Your task to perform on an android device: Go to Yahoo.com Image 0: 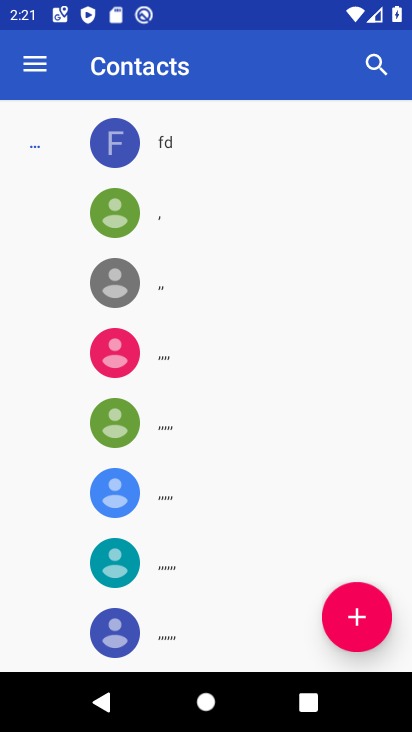
Step 0: drag from (226, 578) to (372, 148)
Your task to perform on an android device: Go to Yahoo.com Image 1: 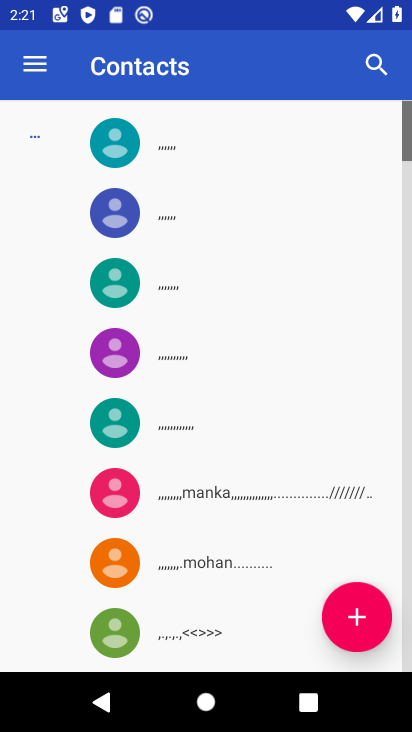
Step 1: press home button
Your task to perform on an android device: Go to Yahoo.com Image 2: 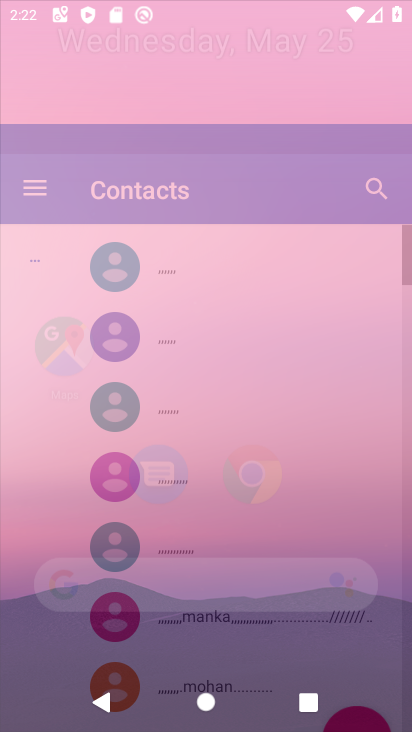
Step 2: drag from (246, 560) to (344, 120)
Your task to perform on an android device: Go to Yahoo.com Image 3: 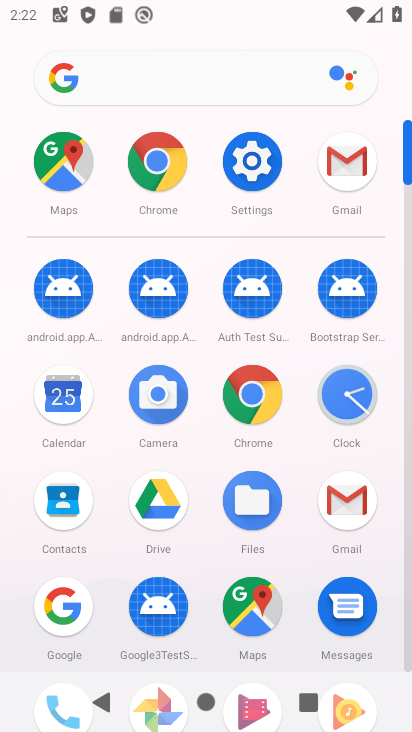
Step 3: click (154, 162)
Your task to perform on an android device: Go to Yahoo.com Image 4: 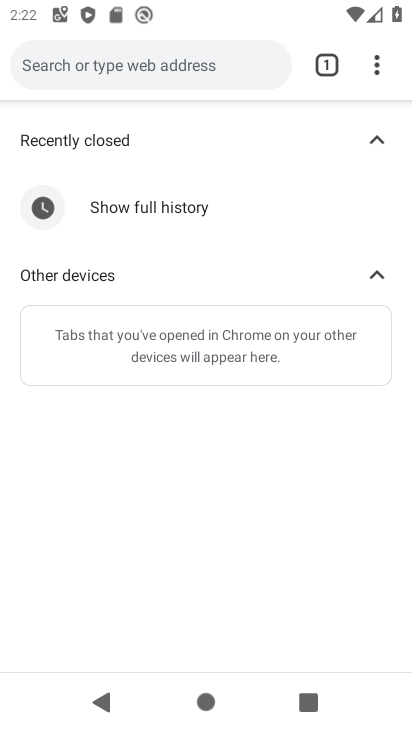
Step 4: click (329, 83)
Your task to perform on an android device: Go to Yahoo.com Image 5: 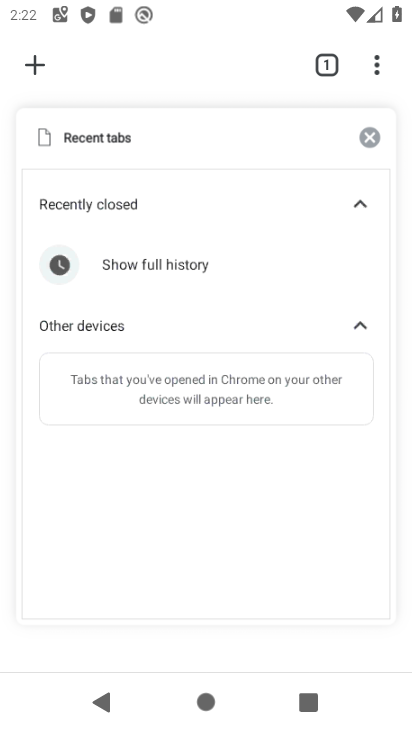
Step 5: click (363, 140)
Your task to perform on an android device: Go to Yahoo.com Image 6: 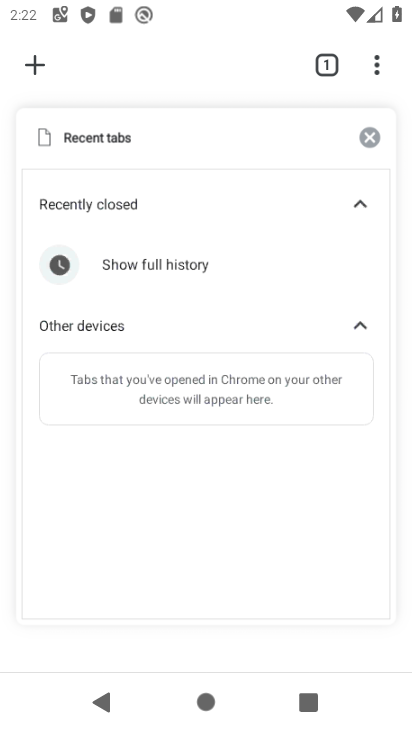
Step 6: click (26, 60)
Your task to perform on an android device: Go to Yahoo.com Image 7: 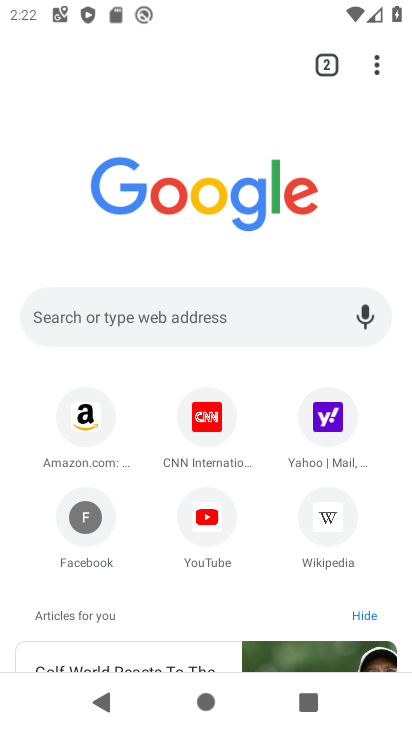
Step 7: click (326, 420)
Your task to perform on an android device: Go to Yahoo.com Image 8: 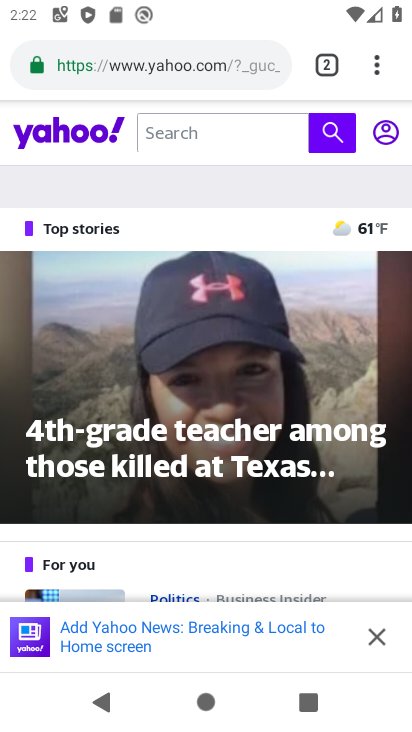
Step 8: task complete